Your task to perform on an android device: Open the calendar and show me this week's events Image 0: 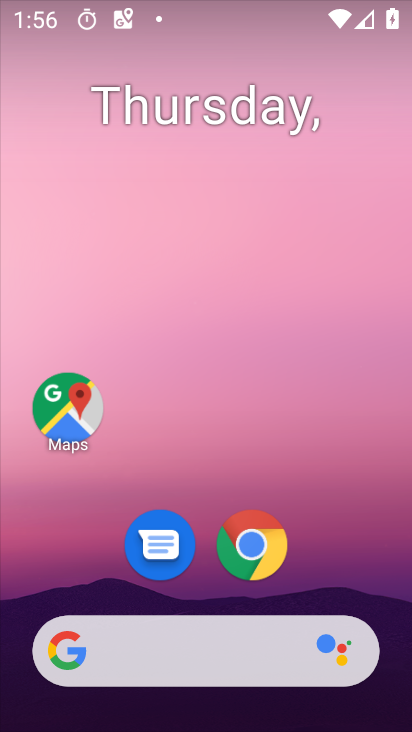
Step 0: drag from (214, 716) to (220, 91)
Your task to perform on an android device: Open the calendar and show me this week's events Image 1: 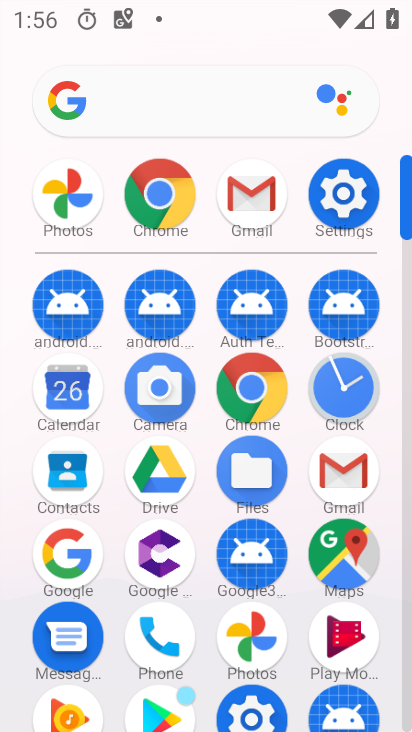
Step 1: click (75, 392)
Your task to perform on an android device: Open the calendar and show me this week's events Image 2: 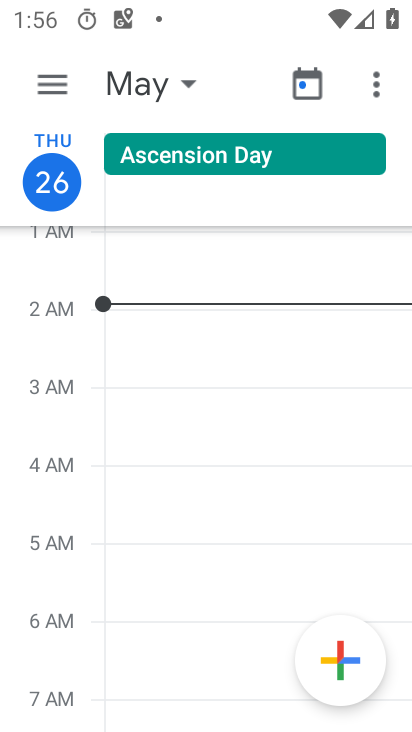
Step 2: click (169, 82)
Your task to perform on an android device: Open the calendar and show me this week's events Image 3: 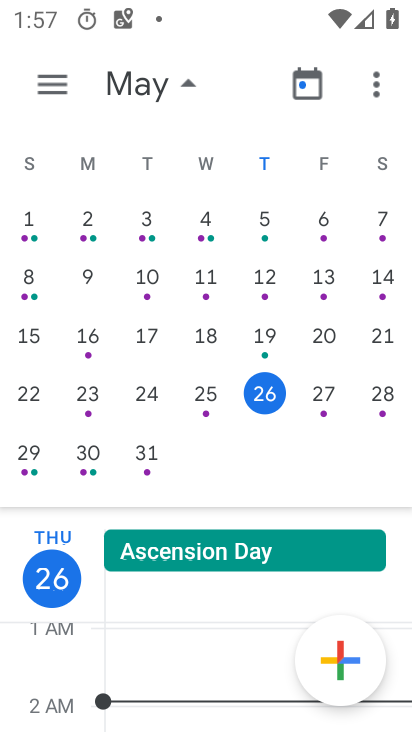
Step 3: click (46, 84)
Your task to perform on an android device: Open the calendar and show me this week's events Image 4: 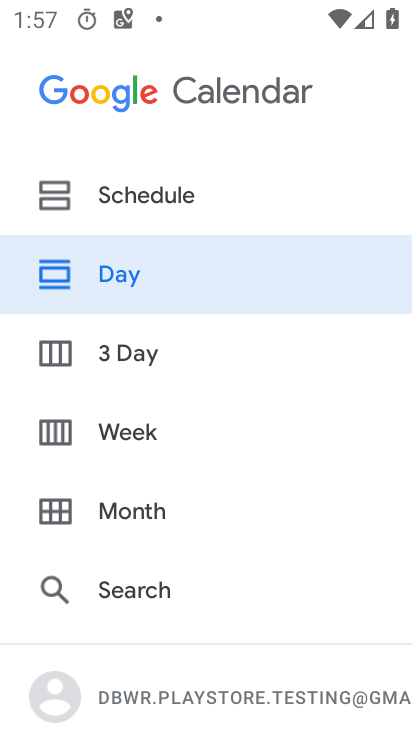
Step 4: drag from (124, 649) to (162, 173)
Your task to perform on an android device: Open the calendar and show me this week's events Image 5: 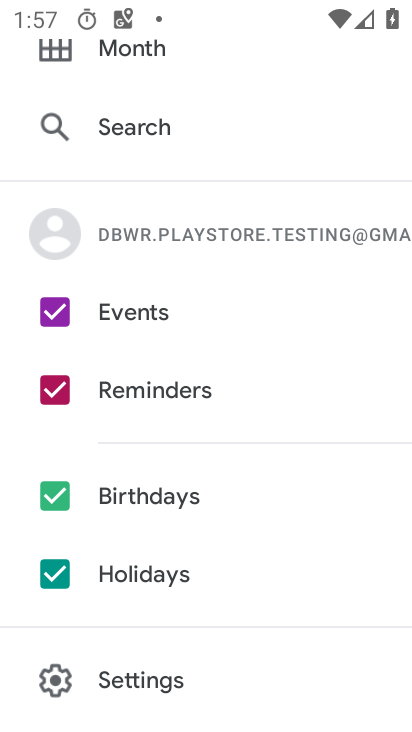
Step 5: click (63, 570)
Your task to perform on an android device: Open the calendar and show me this week's events Image 6: 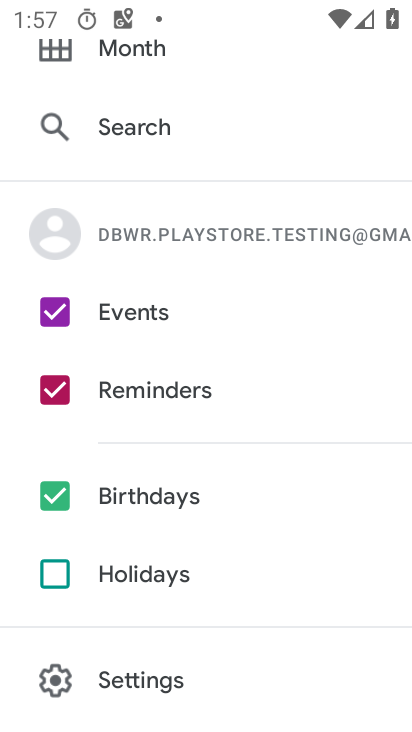
Step 6: click (51, 493)
Your task to perform on an android device: Open the calendar and show me this week's events Image 7: 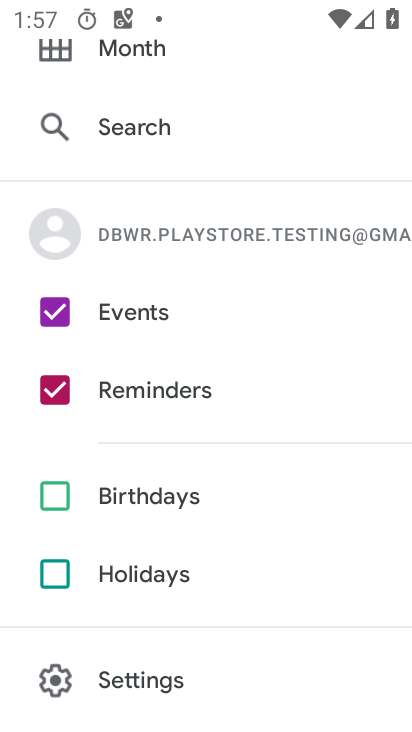
Step 7: click (60, 385)
Your task to perform on an android device: Open the calendar and show me this week's events Image 8: 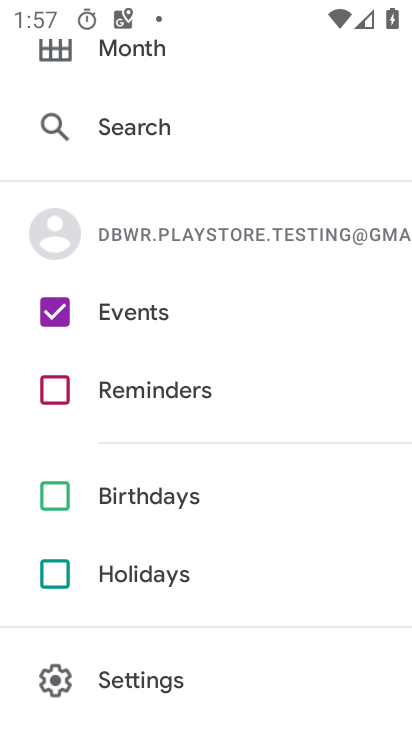
Step 8: drag from (286, 203) to (289, 600)
Your task to perform on an android device: Open the calendar and show me this week's events Image 9: 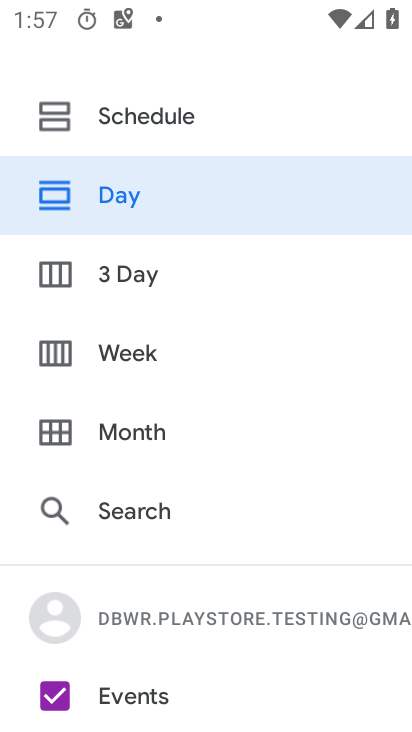
Step 9: click (119, 348)
Your task to perform on an android device: Open the calendar and show me this week's events Image 10: 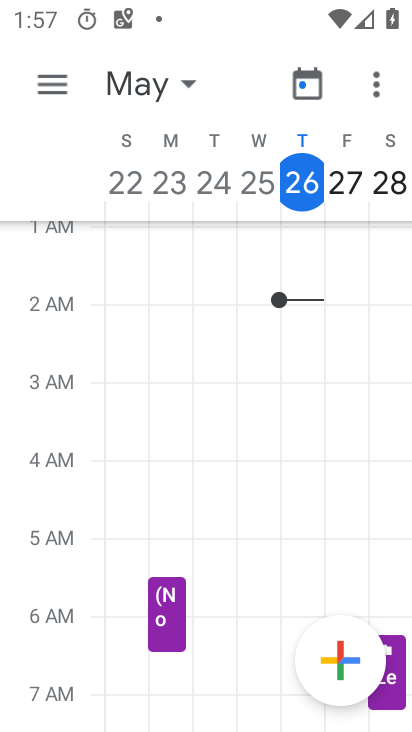
Step 10: task complete